Your task to perform on an android device: Open wifi settings Image 0: 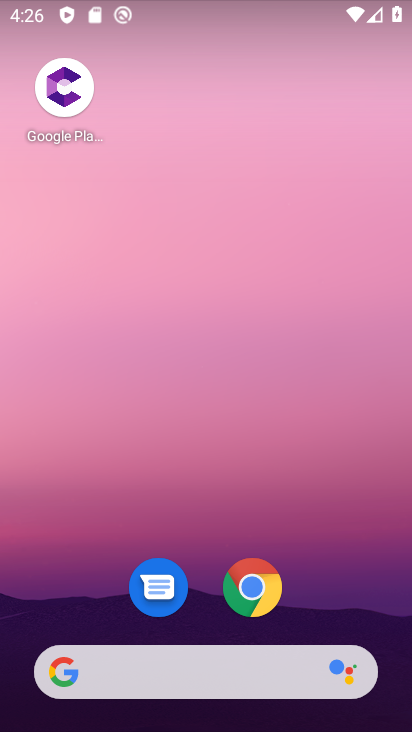
Step 0: drag from (115, 5) to (139, 425)
Your task to perform on an android device: Open wifi settings Image 1: 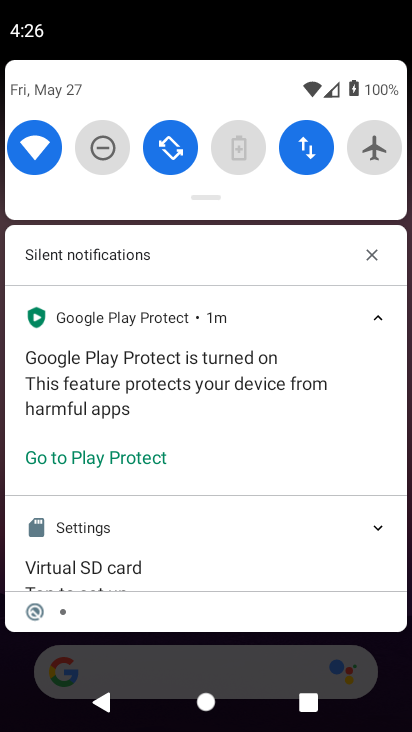
Step 1: task complete